Your task to perform on an android device: Open sound settings Image 0: 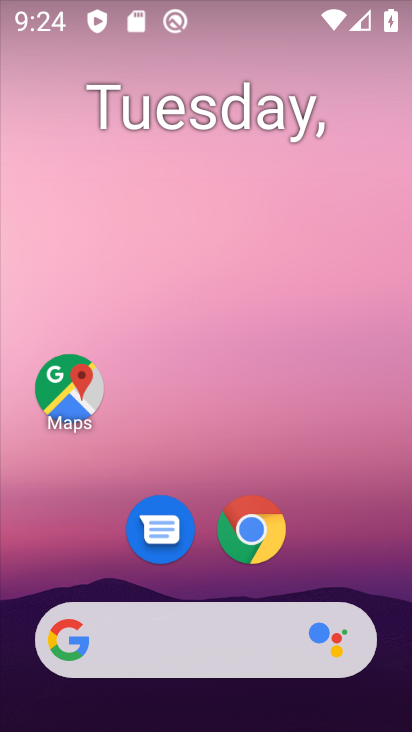
Step 0: drag from (213, 586) to (193, 192)
Your task to perform on an android device: Open sound settings Image 1: 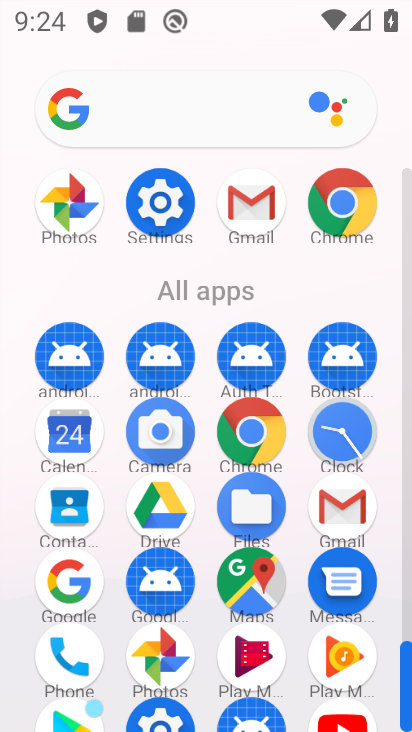
Step 1: click (154, 207)
Your task to perform on an android device: Open sound settings Image 2: 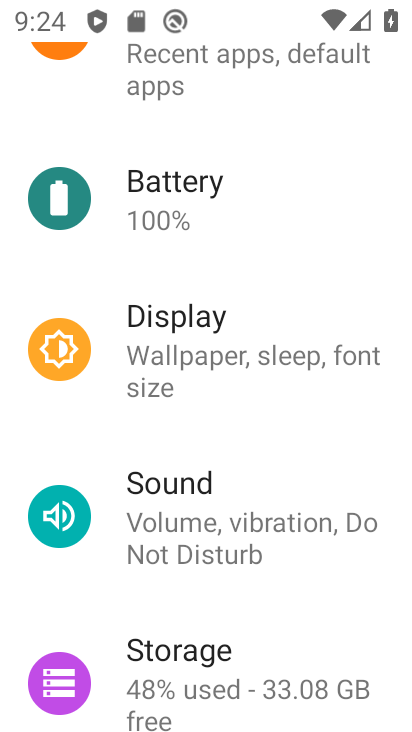
Step 2: click (190, 504)
Your task to perform on an android device: Open sound settings Image 3: 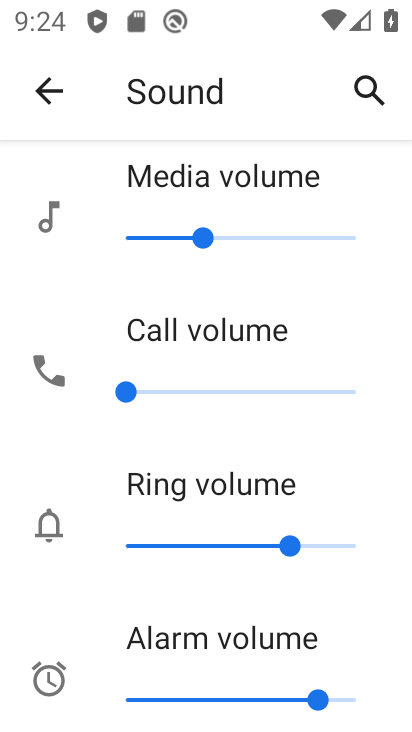
Step 3: task complete